Your task to perform on an android device: open the mobile data screen to see how much data has been used Image 0: 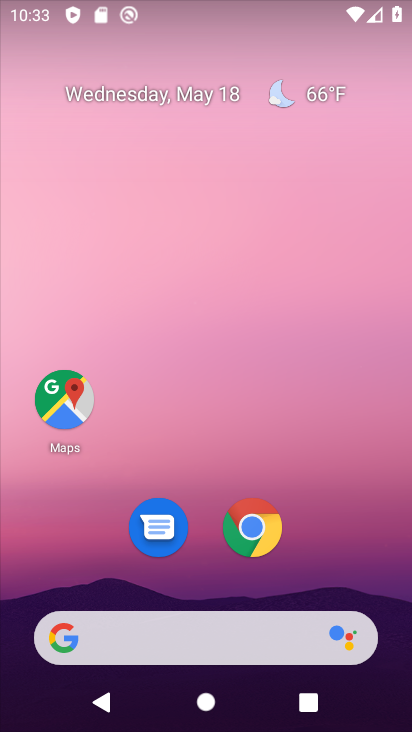
Step 0: drag from (349, 561) to (284, 78)
Your task to perform on an android device: open the mobile data screen to see how much data has been used Image 1: 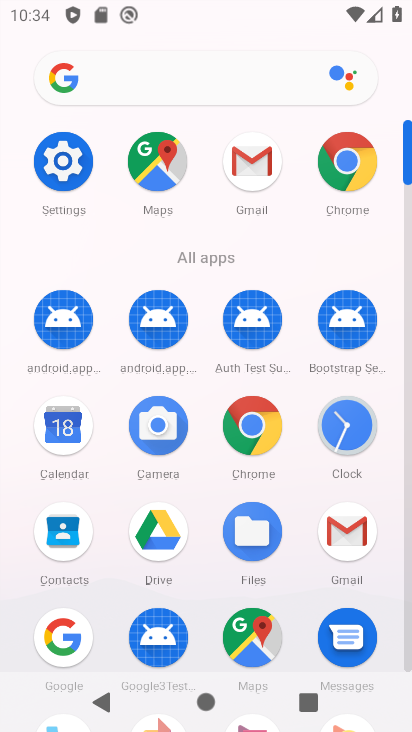
Step 1: click (74, 171)
Your task to perform on an android device: open the mobile data screen to see how much data has been used Image 2: 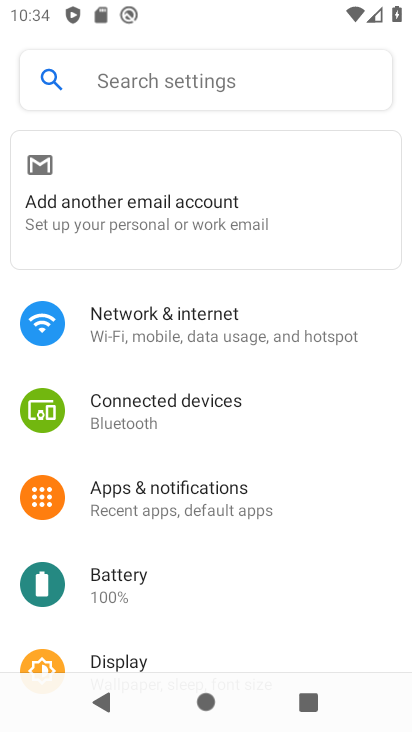
Step 2: click (261, 315)
Your task to perform on an android device: open the mobile data screen to see how much data has been used Image 3: 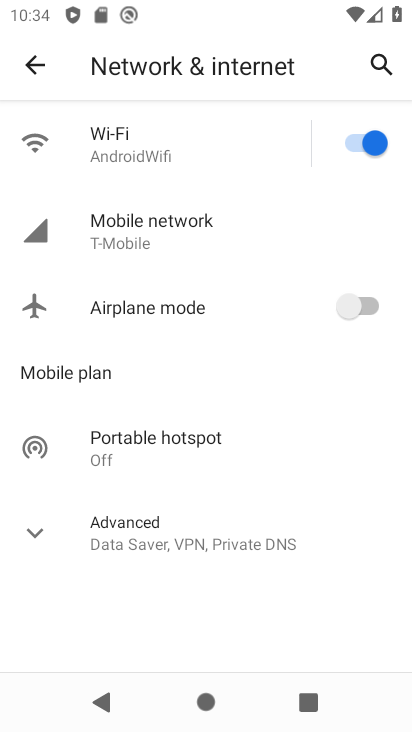
Step 3: click (250, 230)
Your task to perform on an android device: open the mobile data screen to see how much data has been used Image 4: 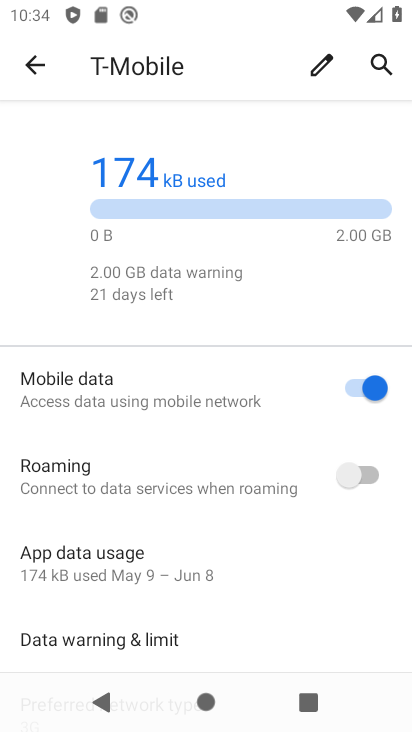
Step 4: task complete